Your task to perform on an android device: turn off smart reply in the gmail app Image 0: 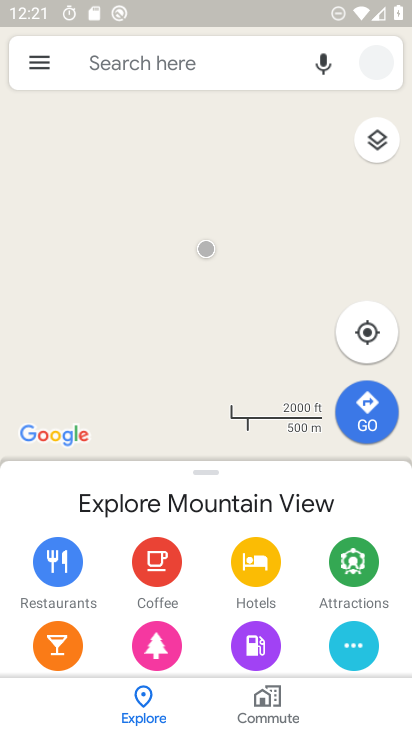
Step 0: press home button
Your task to perform on an android device: turn off smart reply in the gmail app Image 1: 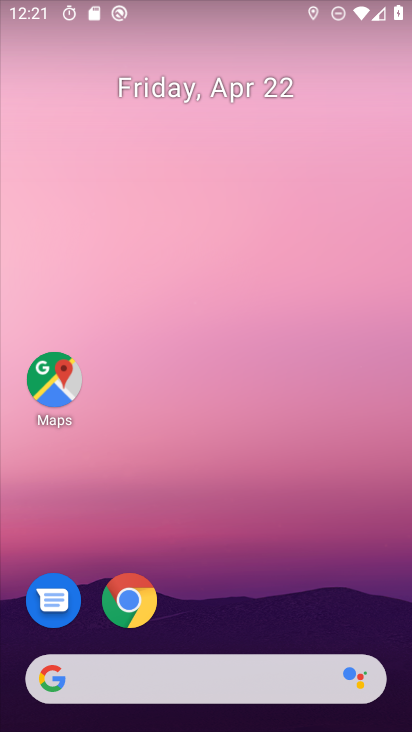
Step 1: drag from (286, 566) to (254, 20)
Your task to perform on an android device: turn off smart reply in the gmail app Image 2: 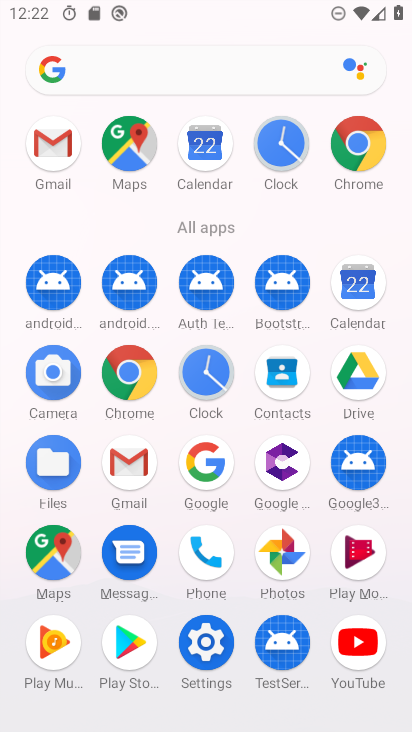
Step 2: click (54, 145)
Your task to perform on an android device: turn off smart reply in the gmail app Image 3: 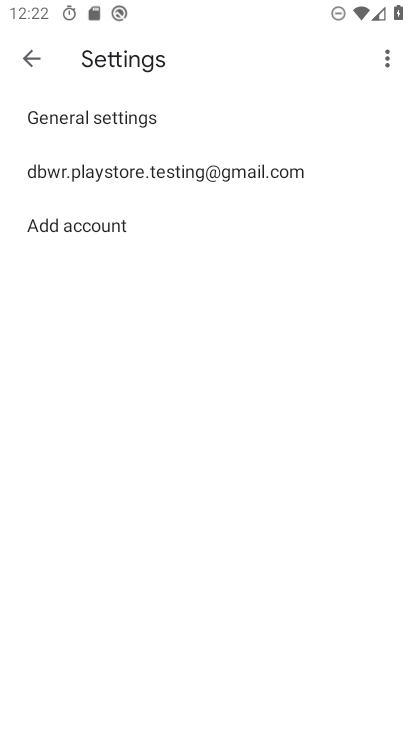
Step 3: click (70, 173)
Your task to perform on an android device: turn off smart reply in the gmail app Image 4: 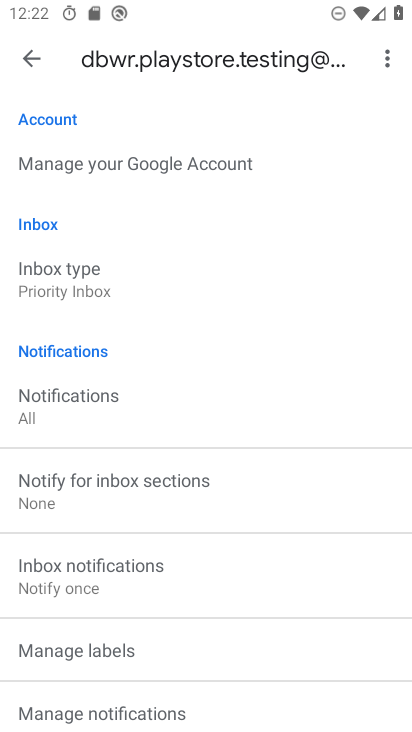
Step 4: drag from (166, 336) to (167, 233)
Your task to perform on an android device: turn off smart reply in the gmail app Image 5: 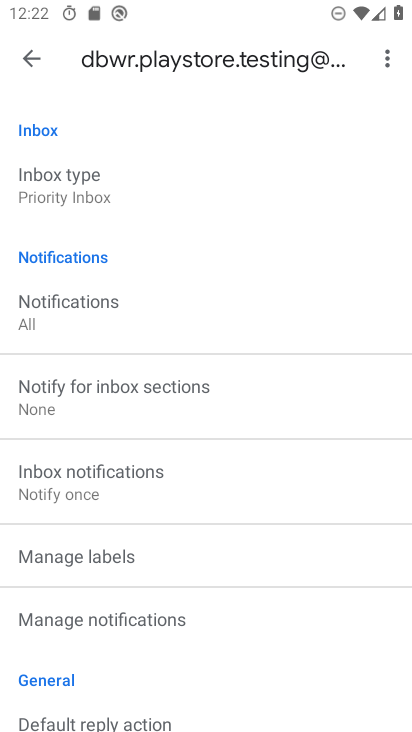
Step 5: drag from (139, 332) to (180, 228)
Your task to perform on an android device: turn off smart reply in the gmail app Image 6: 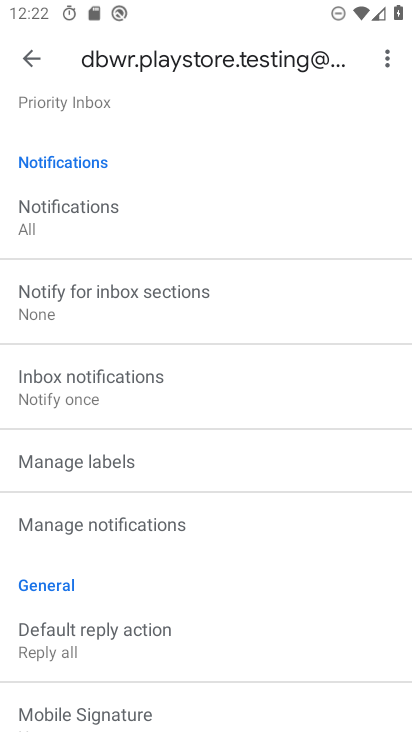
Step 6: drag from (148, 345) to (177, 262)
Your task to perform on an android device: turn off smart reply in the gmail app Image 7: 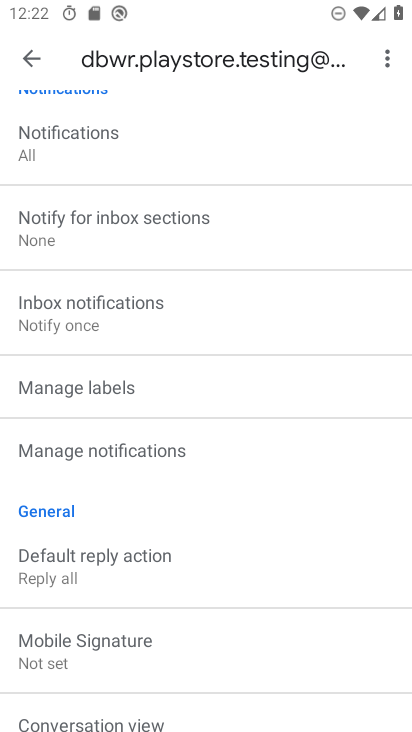
Step 7: drag from (174, 359) to (214, 217)
Your task to perform on an android device: turn off smart reply in the gmail app Image 8: 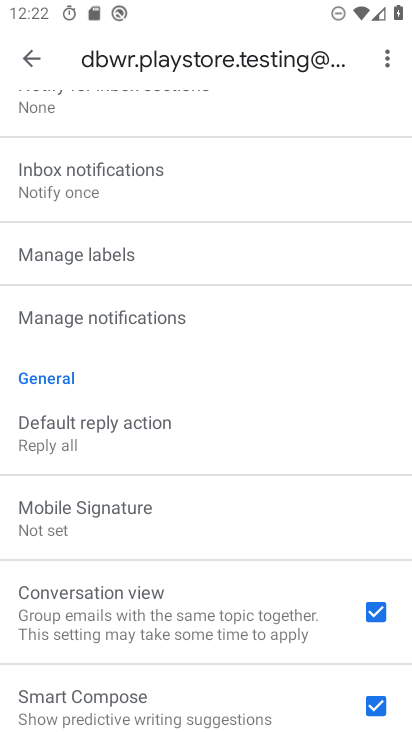
Step 8: drag from (179, 357) to (228, 274)
Your task to perform on an android device: turn off smart reply in the gmail app Image 9: 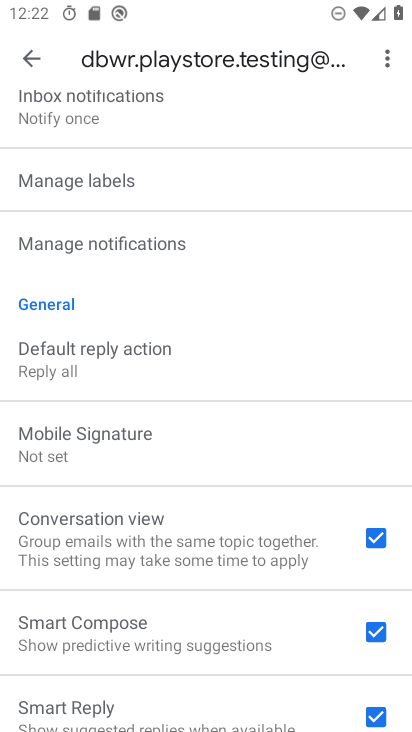
Step 9: drag from (137, 484) to (201, 353)
Your task to perform on an android device: turn off smart reply in the gmail app Image 10: 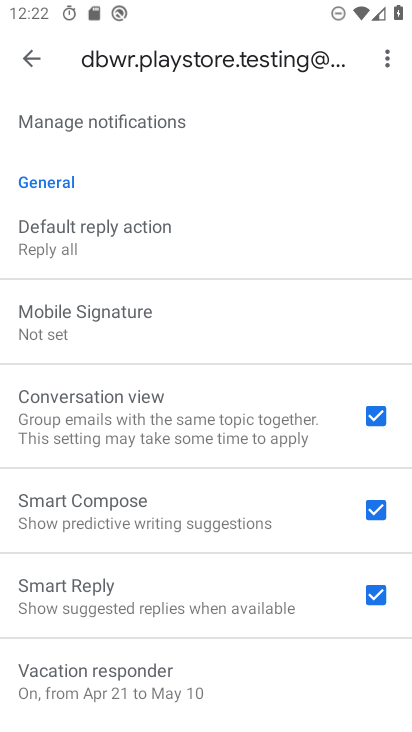
Step 10: click (380, 601)
Your task to perform on an android device: turn off smart reply in the gmail app Image 11: 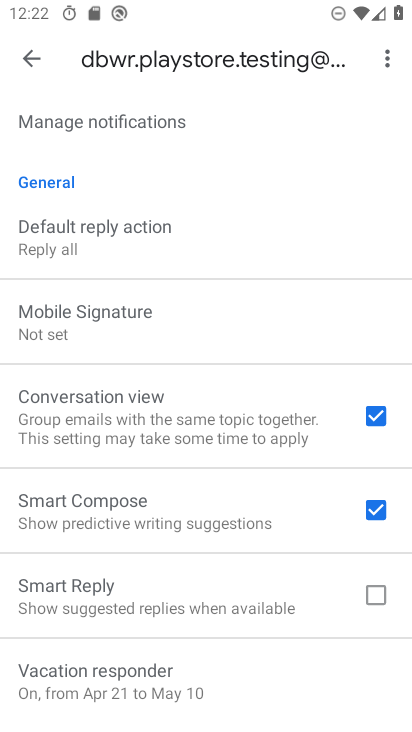
Step 11: task complete